Your task to perform on an android device: open a new tab in the chrome app Image 0: 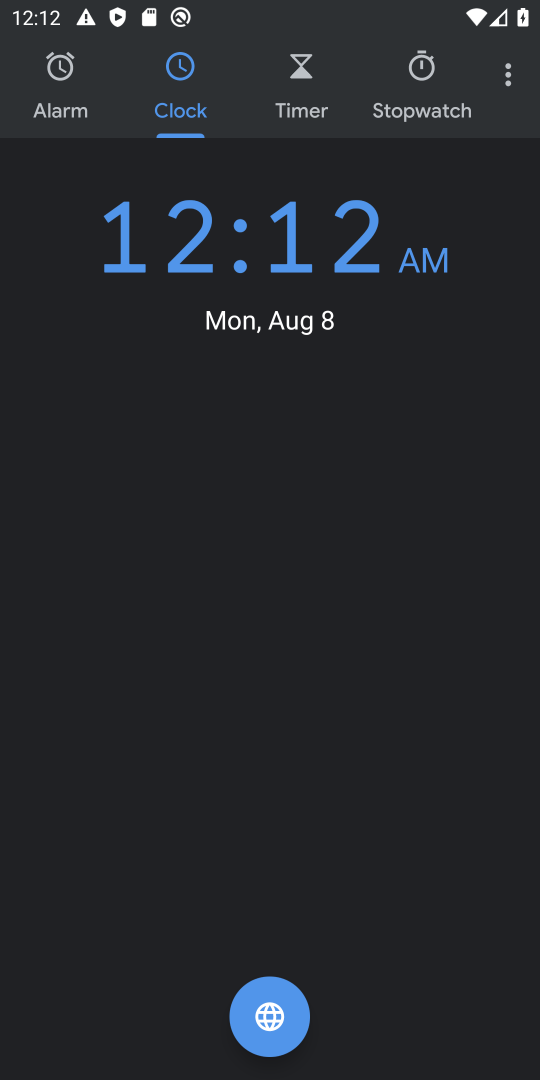
Step 0: press home button
Your task to perform on an android device: open a new tab in the chrome app Image 1: 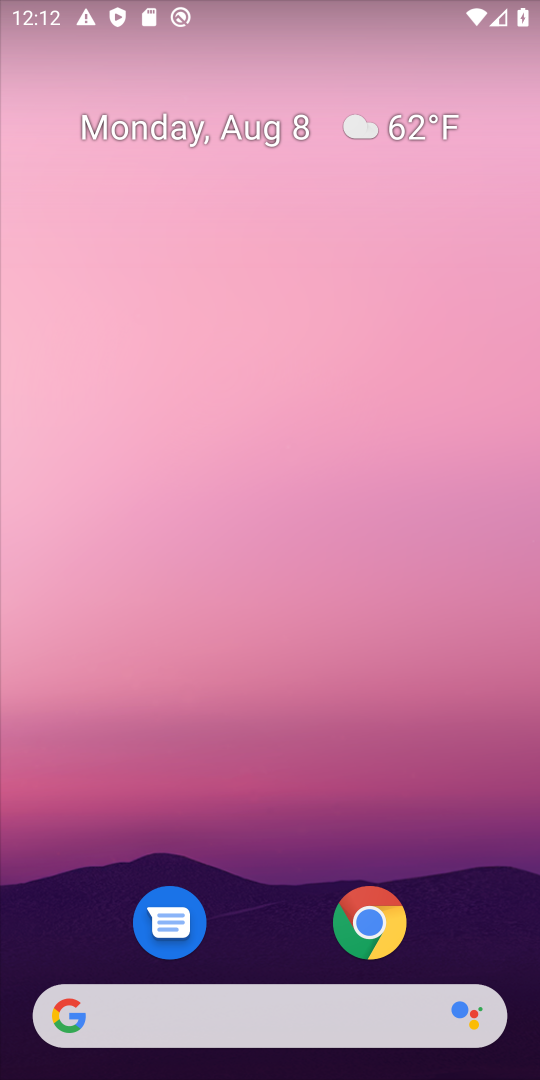
Step 1: click (379, 908)
Your task to perform on an android device: open a new tab in the chrome app Image 2: 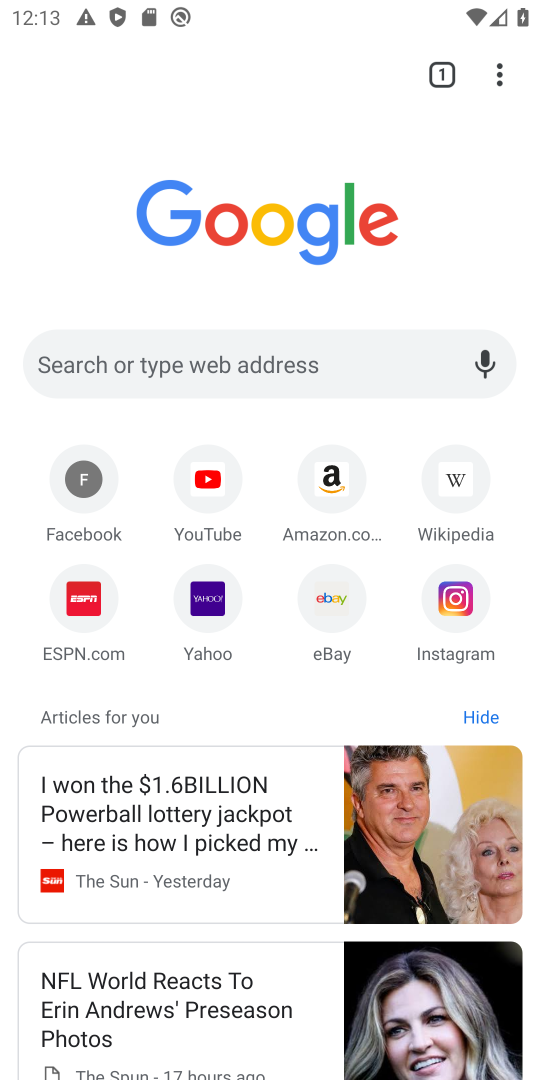
Step 2: click (436, 66)
Your task to perform on an android device: open a new tab in the chrome app Image 3: 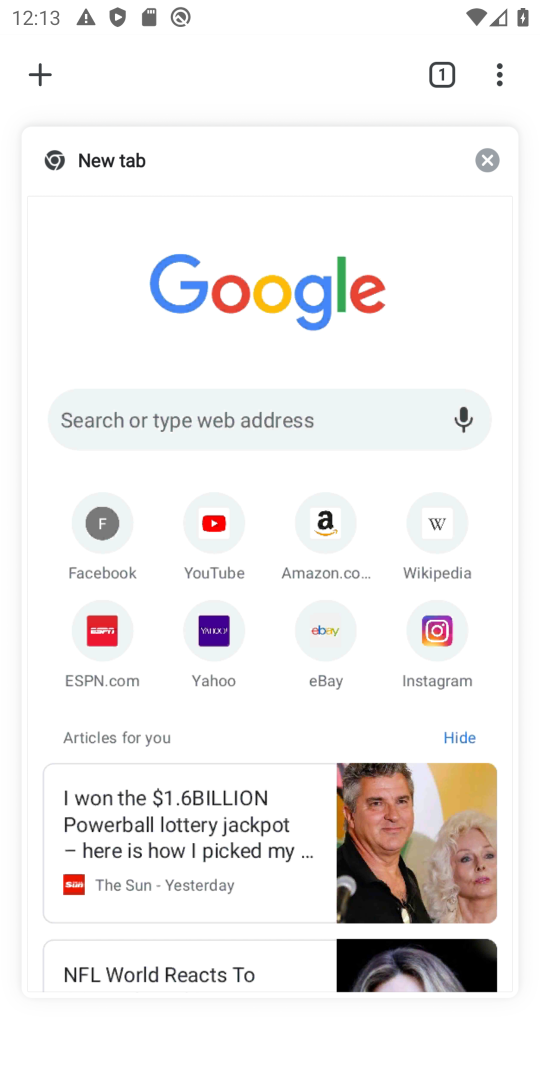
Step 3: click (47, 69)
Your task to perform on an android device: open a new tab in the chrome app Image 4: 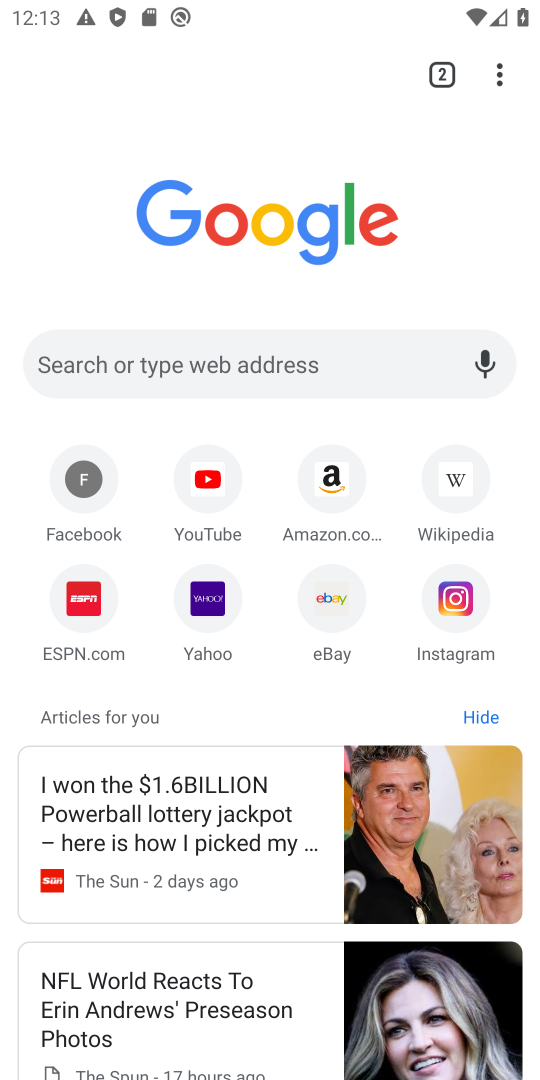
Step 4: task complete